Your task to perform on an android device: turn notification dots off Image 0: 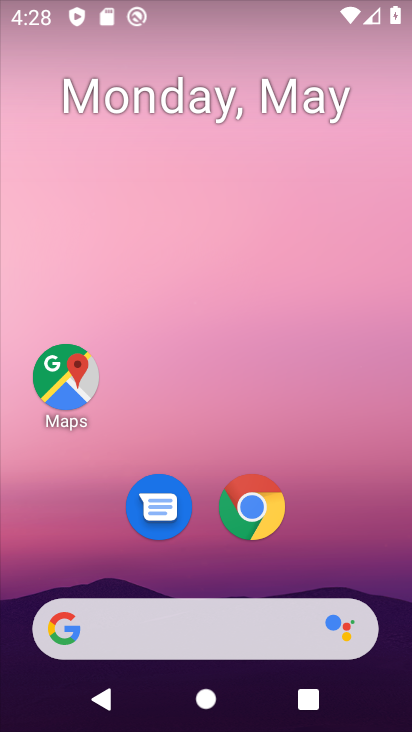
Step 0: drag from (367, 541) to (307, 19)
Your task to perform on an android device: turn notification dots off Image 1: 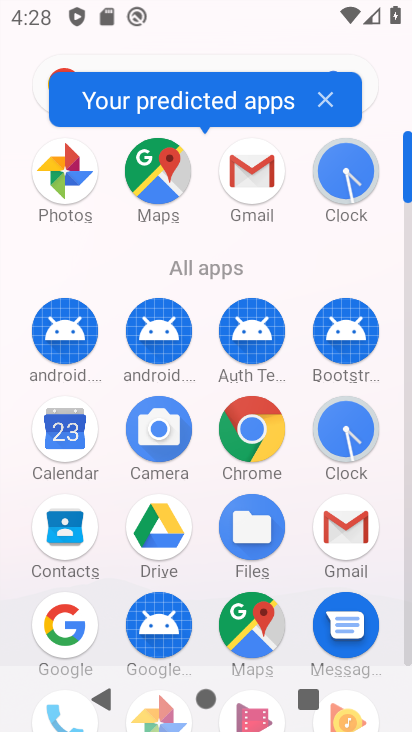
Step 1: drag from (400, 633) to (338, 153)
Your task to perform on an android device: turn notification dots off Image 2: 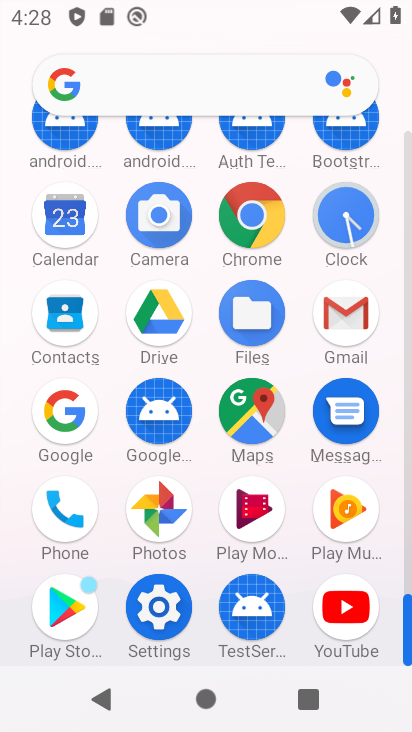
Step 2: click (157, 602)
Your task to perform on an android device: turn notification dots off Image 3: 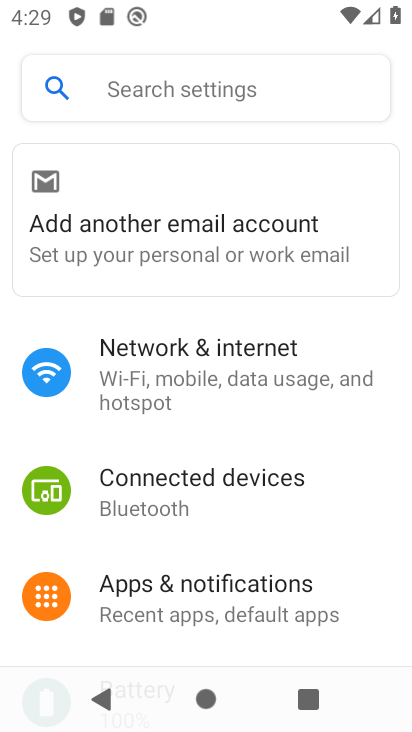
Step 3: click (229, 595)
Your task to perform on an android device: turn notification dots off Image 4: 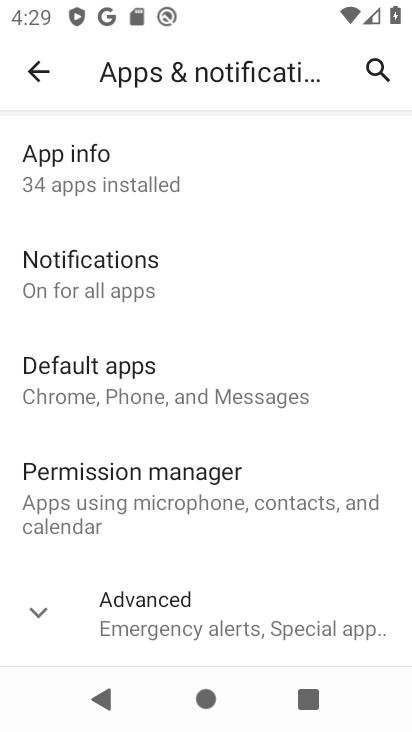
Step 4: drag from (189, 635) to (244, 246)
Your task to perform on an android device: turn notification dots off Image 5: 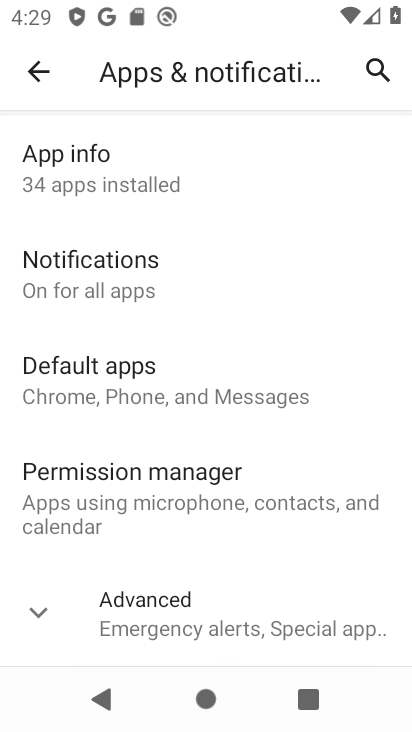
Step 5: click (115, 287)
Your task to perform on an android device: turn notification dots off Image 6: 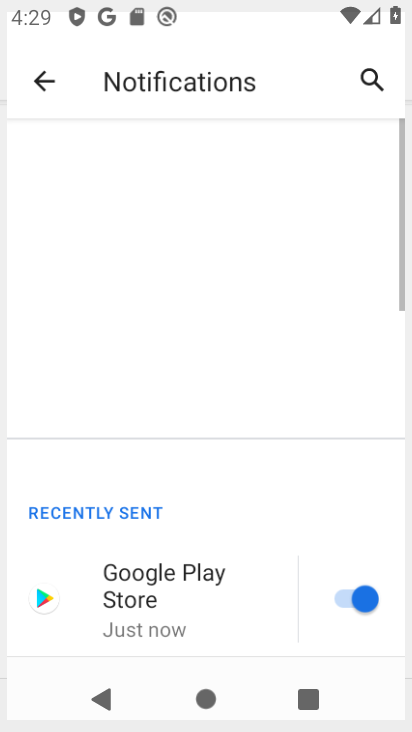
Step 6: drag from (197, 584) to (242, 188)
Your task to perform on an android device: turn notification dots off Image 7: 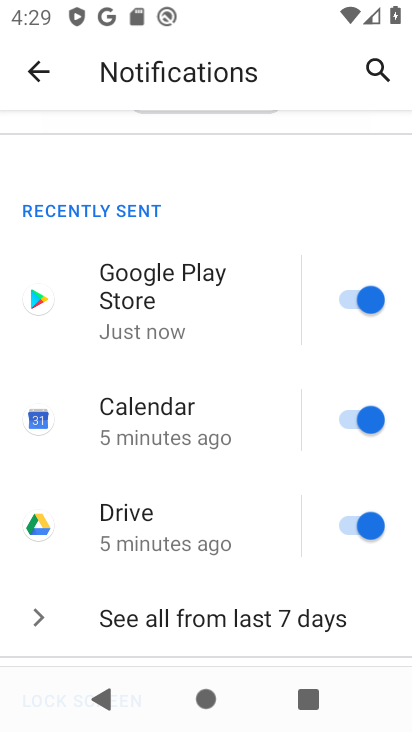
Step 7: drag from (219, 580) to (227, 160)
Your task to perform on an android device: turn notification dots off Image 8: 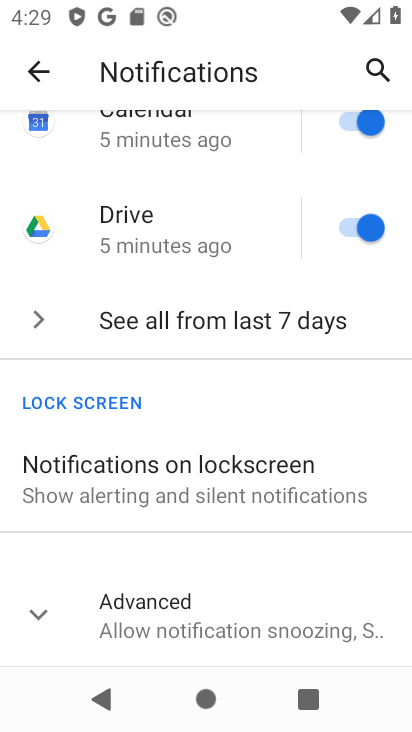
Step 8: click (164, 603)
Your task to perform on an android device: turn notification dots off Image 9: 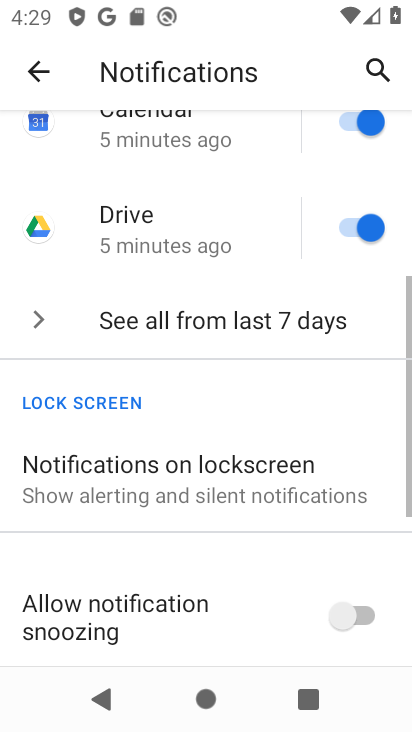
Step 9: drag from (183, 608) to (203, 194)
Your task to perform on an android device: turn notification dots off Image 10: 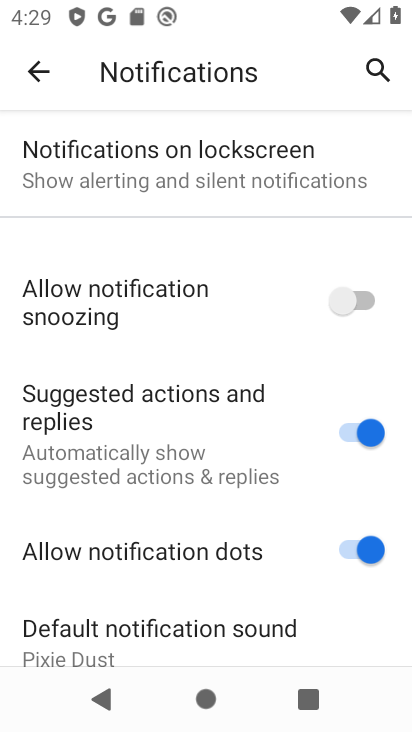
Step 10: click (355, 542)
Your task to perform on an android device: turn notification dots off Image 11: 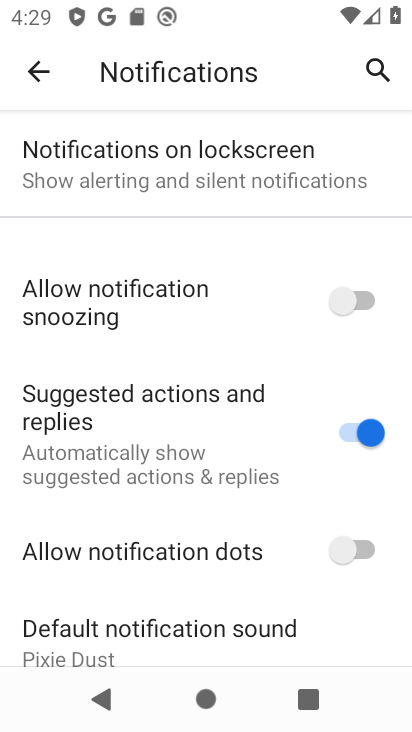
Step 11: task complete